Your task to perform on an android device: toggle data saver in the chrome app Image 0: 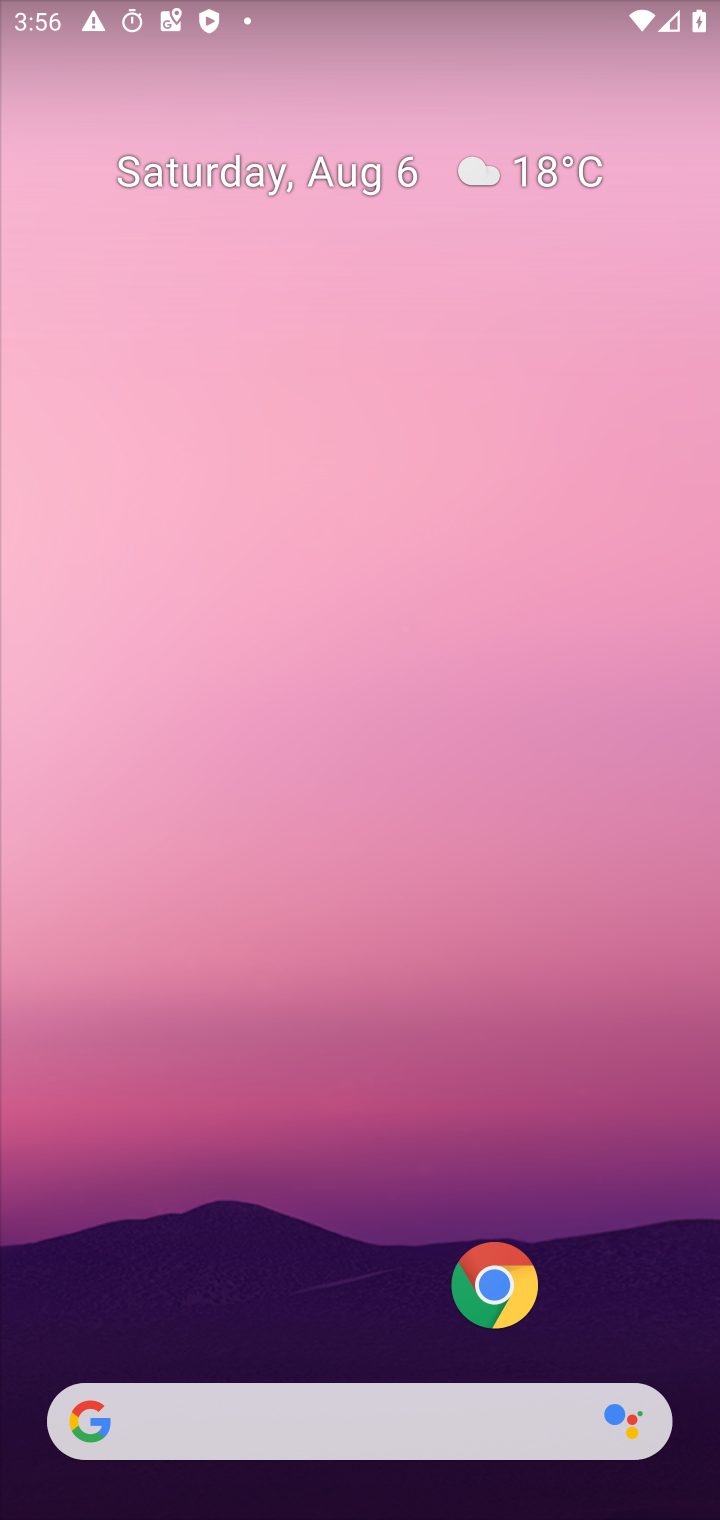
Step 0: press home button
Your task to perform on an android device: toggle data saver in the chrome app Image 1: 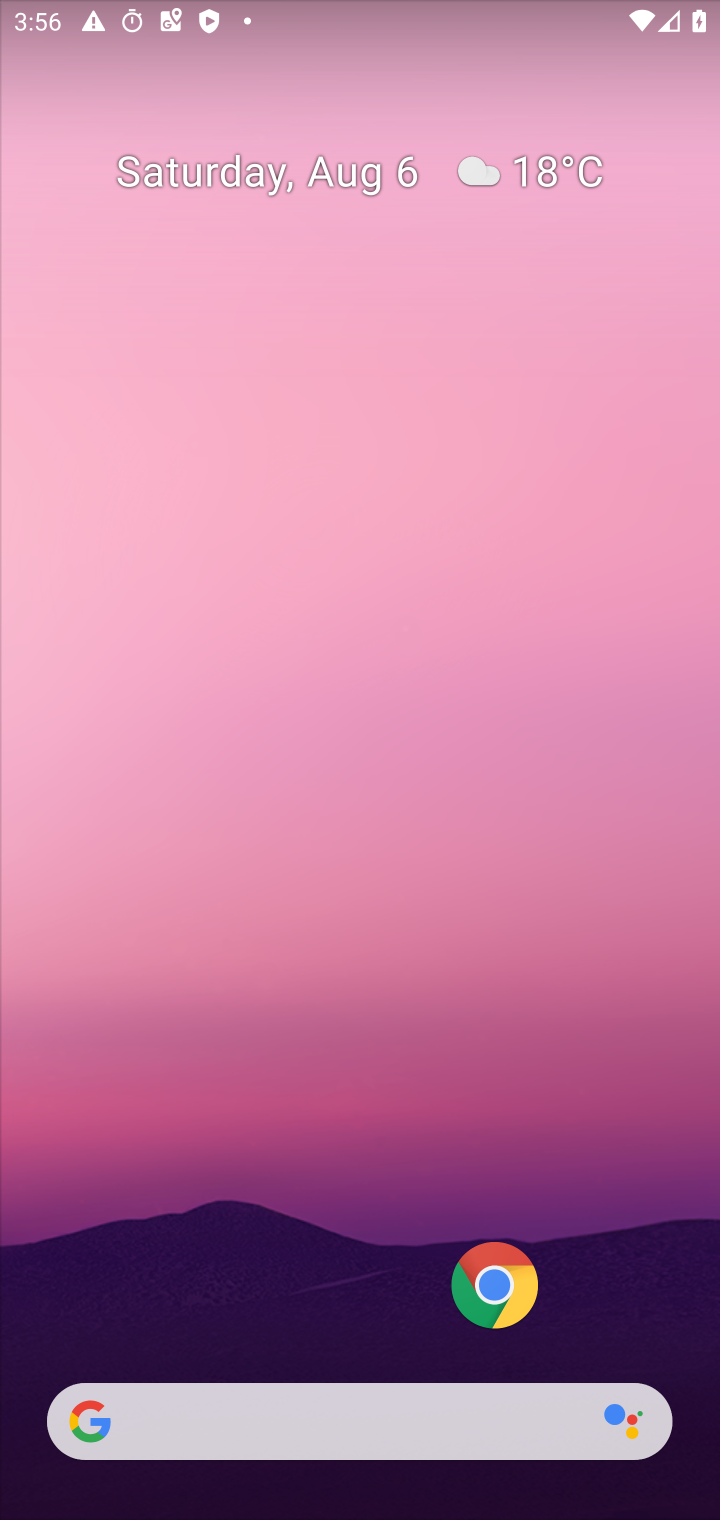
Step 1: click (491, 1269)
Your task to perform on an android device: toggle data saver in the chrome app Image 2: 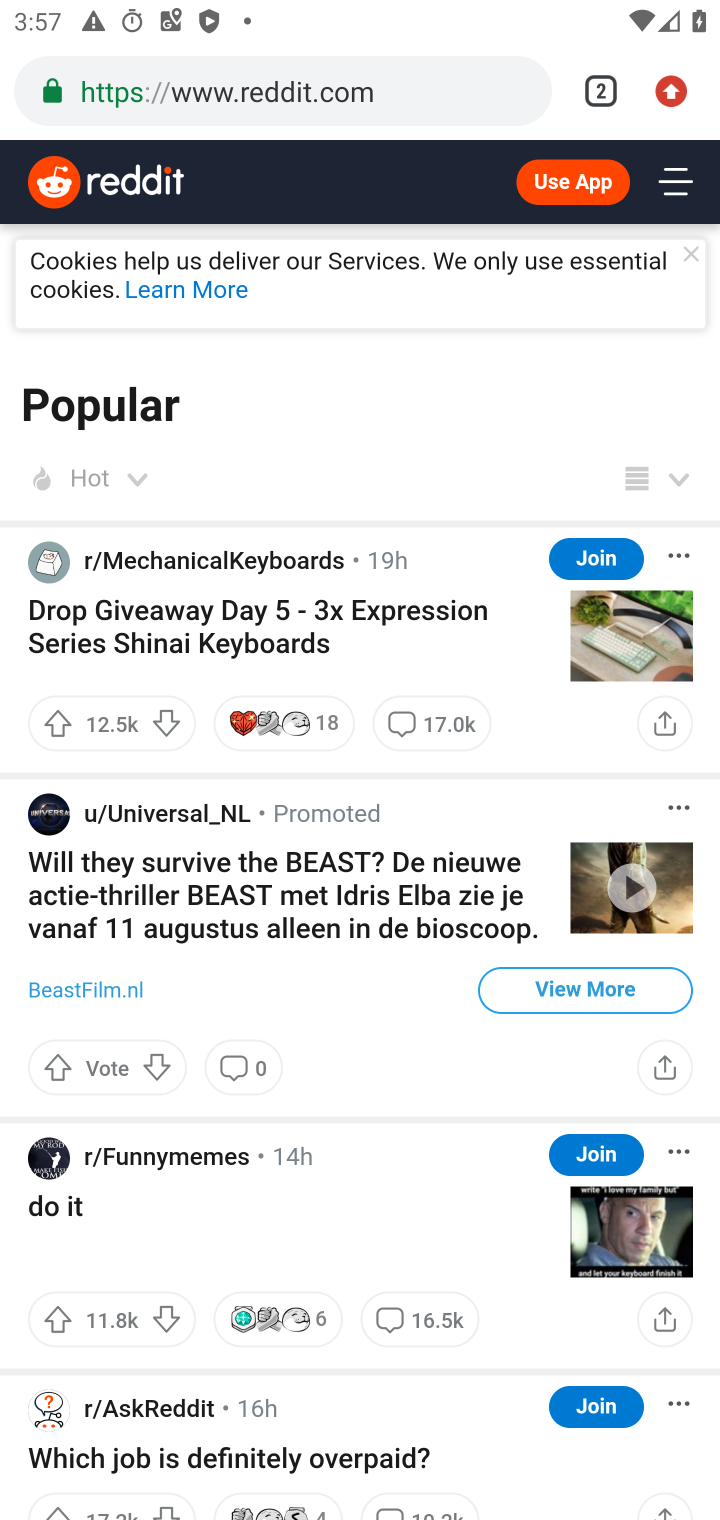
Step 2: click (669, 83)
Your task to perform on an android device: toggle data saver in the chrome app Image 3: 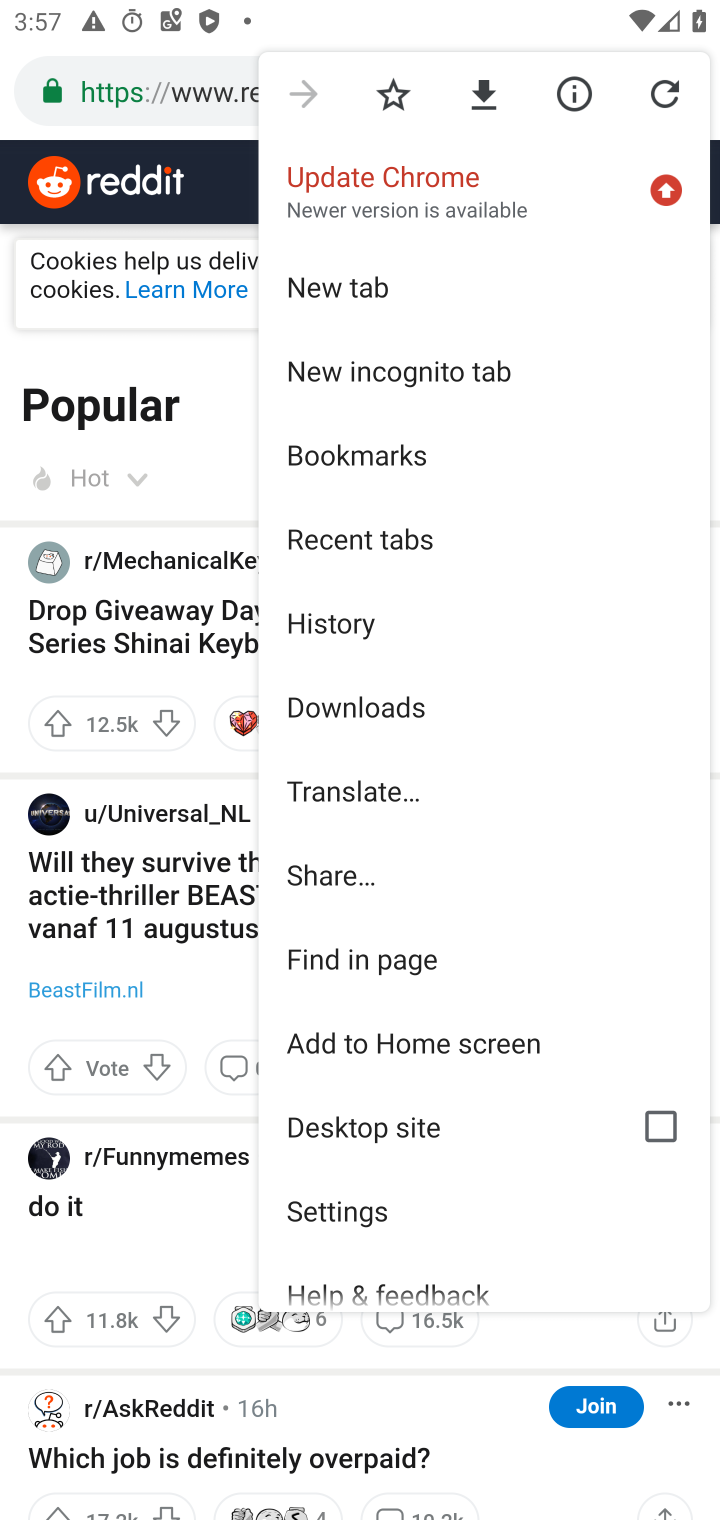
Step 3: click (388, 1207)
Your task to perform on an android device: toggle data saver in the chrome app Image 4: 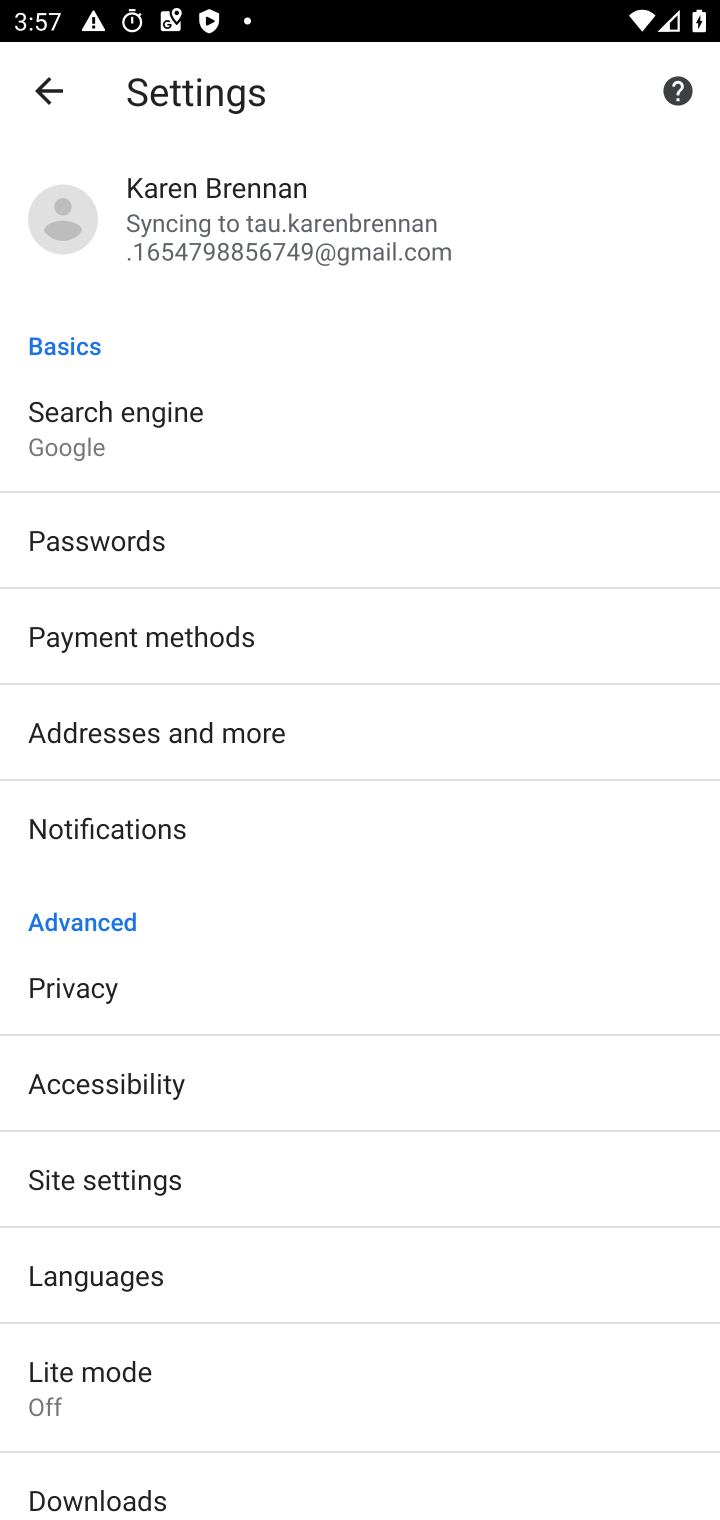
Step 4: click (110, 1394)
Your task to perform on an android device: toggle data saver in the chrome app Image 5: 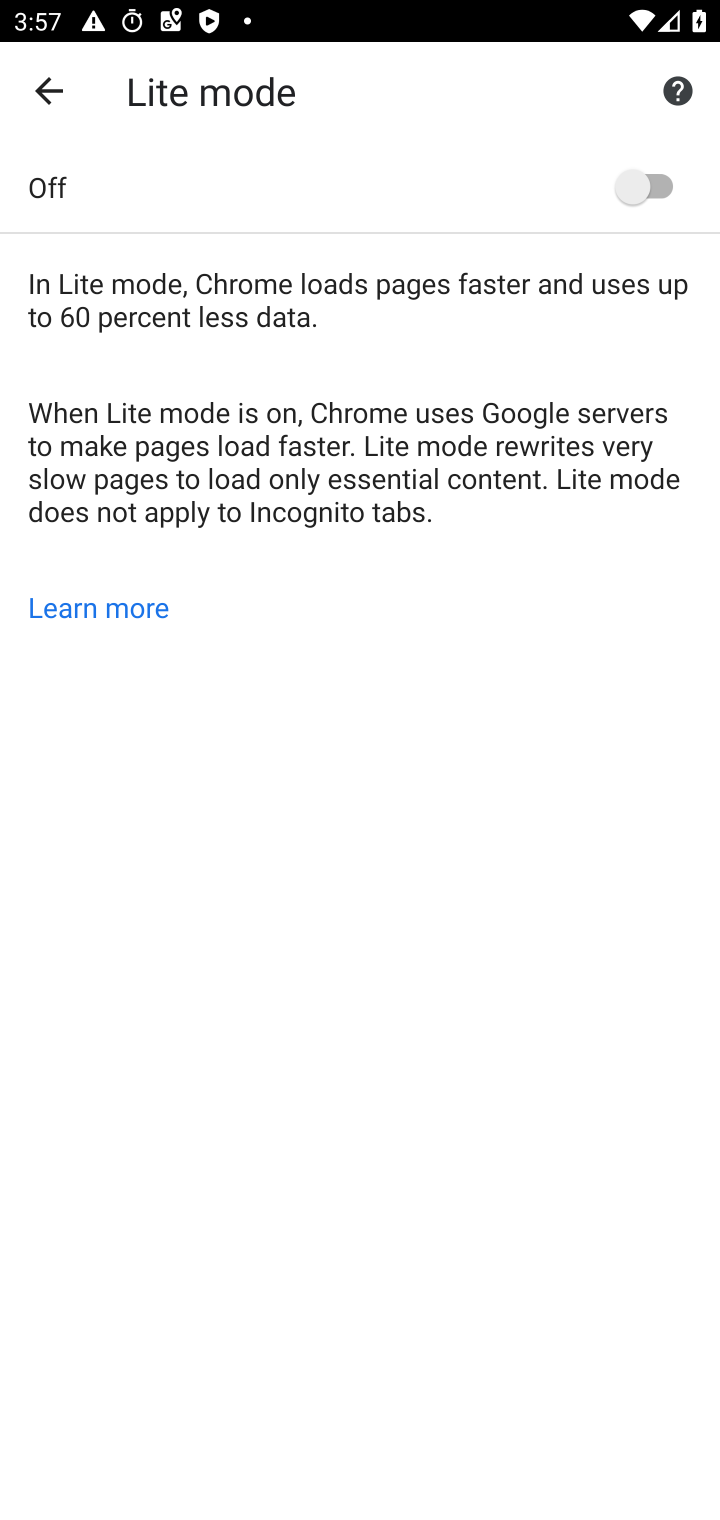
Step 5: click (649, 177)
Your task to perform on an android device: toggle data saver in the chrome app Image 6: 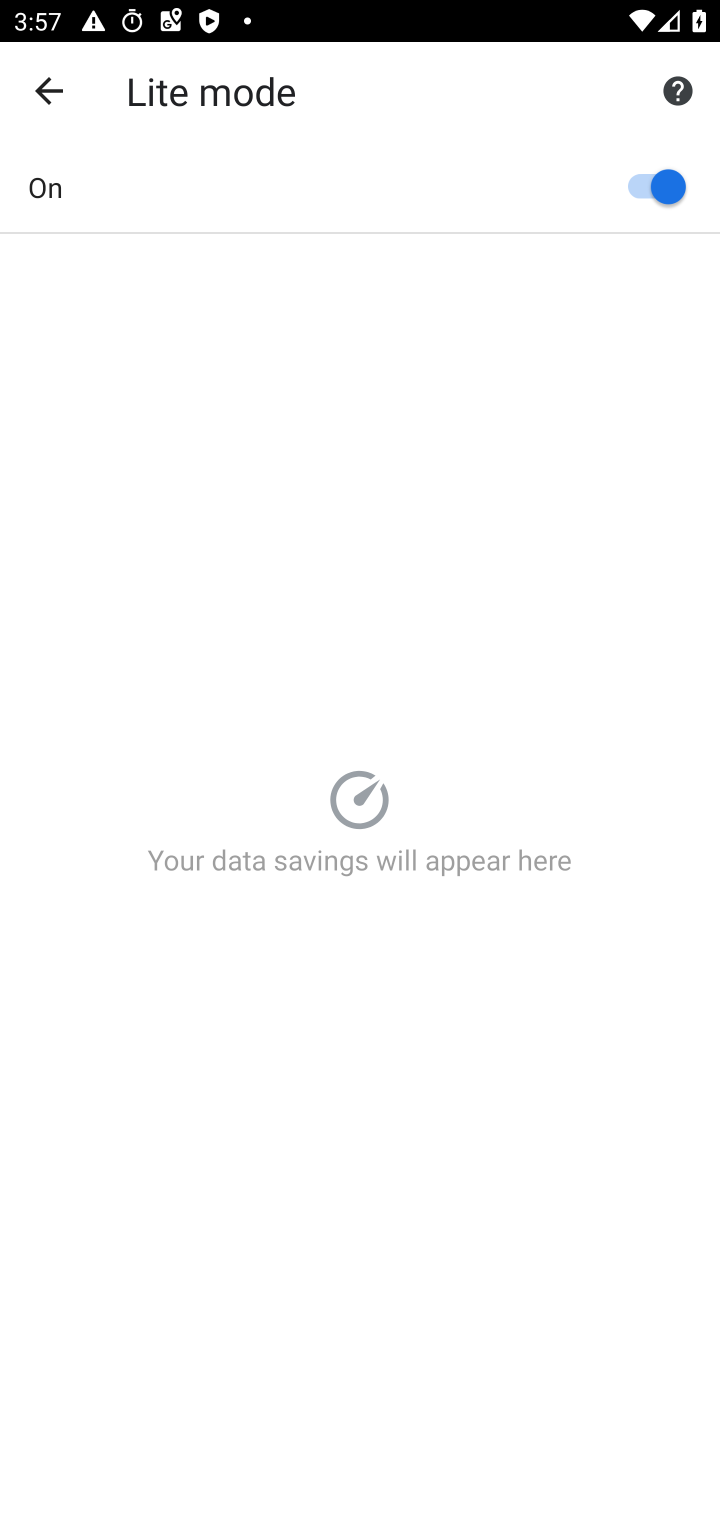
Step 6: task complete